Your task to perform on an android device: toggle improve location accuracy Image 0: 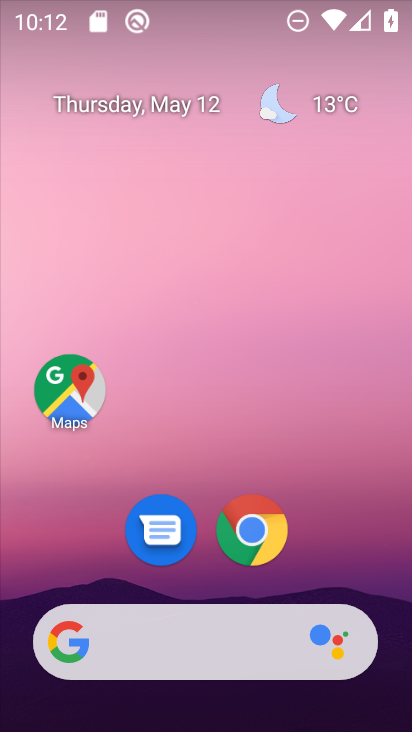
Step 0: drag from (174, 429) to (225, 12)
Your task to perform on an android device: toggle improve location accuracy Image 1: 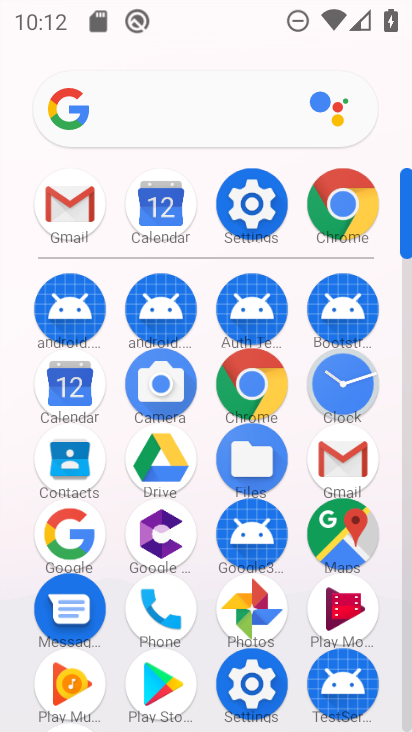
Step 1: click (254, 187)
Your task to perform on an android device: toggle improve location accuracy Image 2: 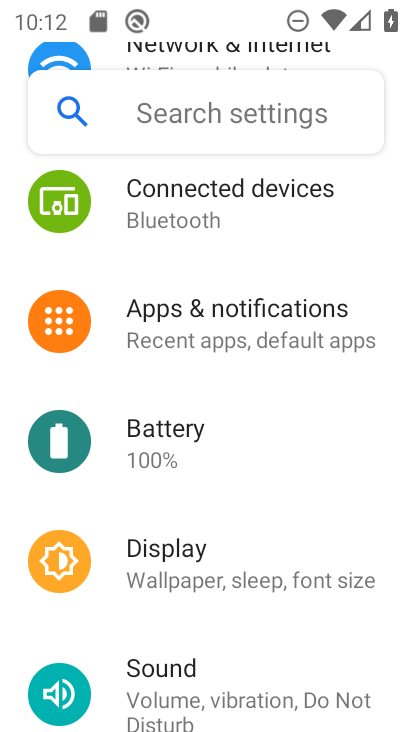
Step 2: drag from (249, 217) to (219, 606)
Your task to perform on an android device: toggle improve location accuracy Image 3: 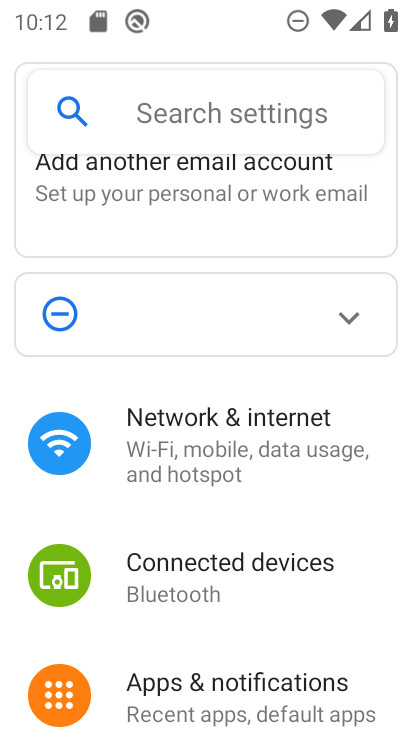
Step 3: drag from (281, 548) to (292, 161)
Your task to perform on an android device: toggle improve location accuracy Image 4: 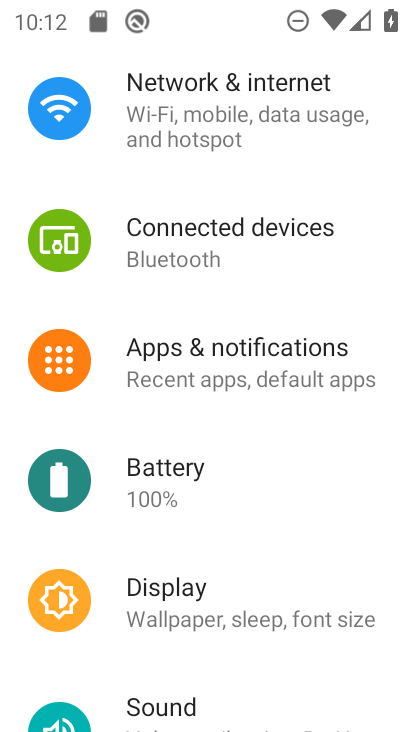
Step 4: drag from (293, 551) to (293, 87)
Your task to perform on an android device: toggle improve location accuracy Image 5: 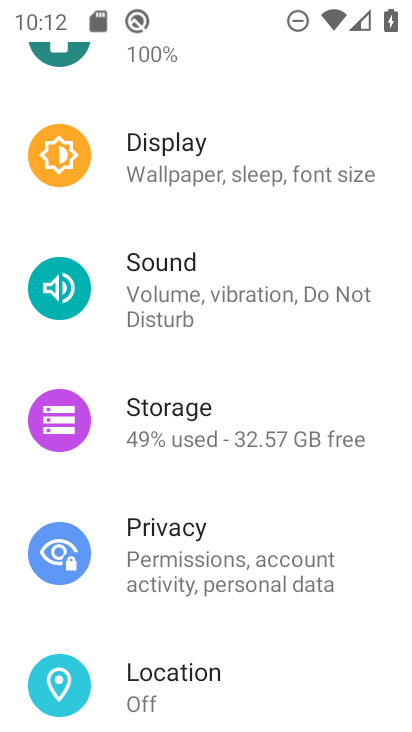
Step 5: click (218, 679)
Your task to perform on an android device: toggle improve location accuracy Image 6: 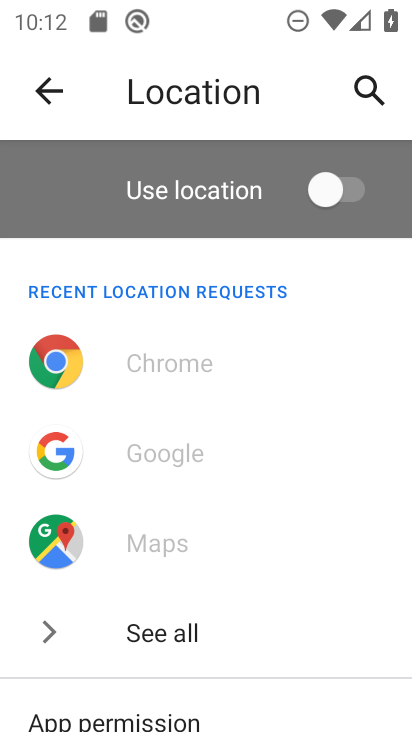
Step 6: drag from (279, 638) to (294, 255)
Your task to perform on an android device: toggle improve location accuracy Image 7: 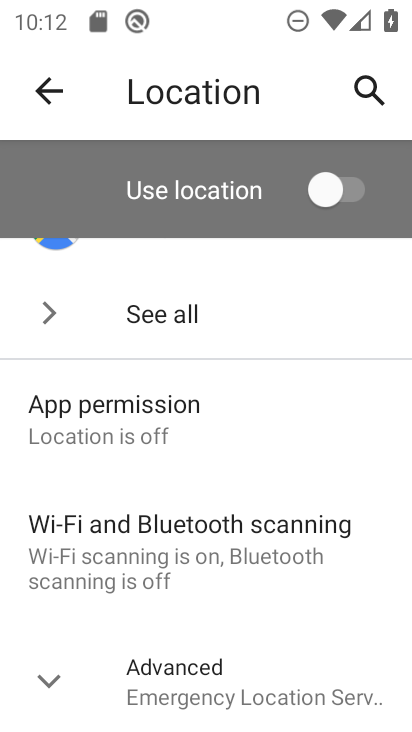
Step 7: drag from (272, 609) to (295, 238)
Your task to perform on an android device: toggle improve location accuracy Image 8: 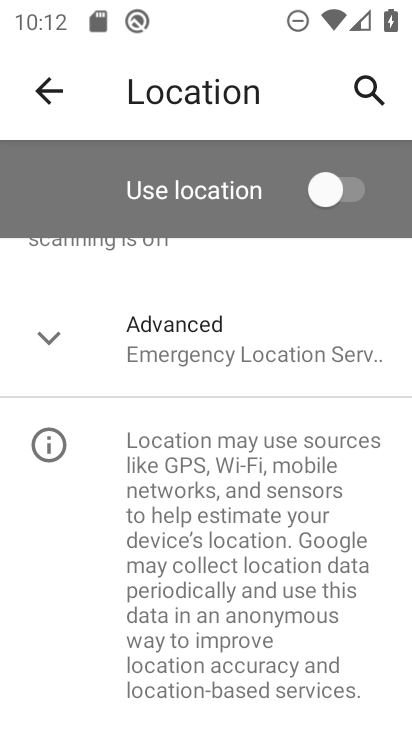
Step 8: drag from (292, 528) to (255, 224)
Your task to perform on an android device: toggle improve location accuracy Image 9: 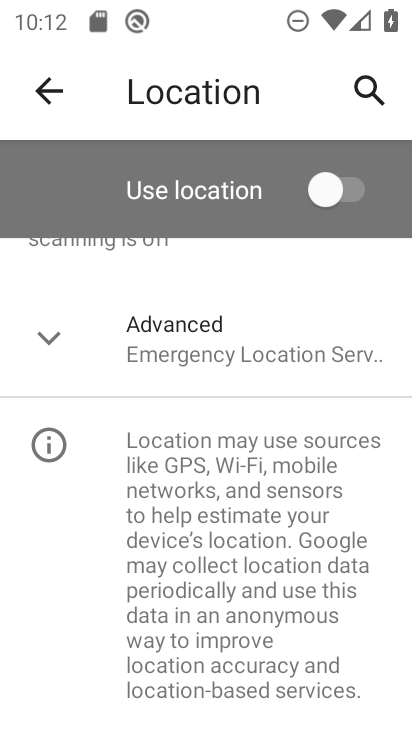
Step 9: click (271, 330)
Your task to perform on an android device: toggle improve location accuracy Image 10: 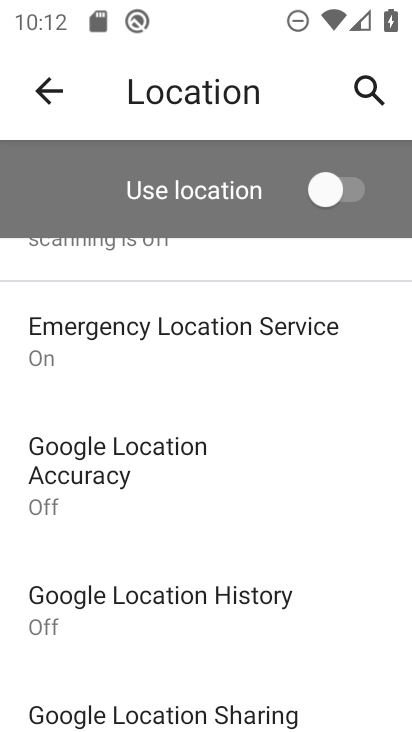
Step 10: click (167, 456)
Your task to perform on an android device: toggle improve location accuracy Image 11: 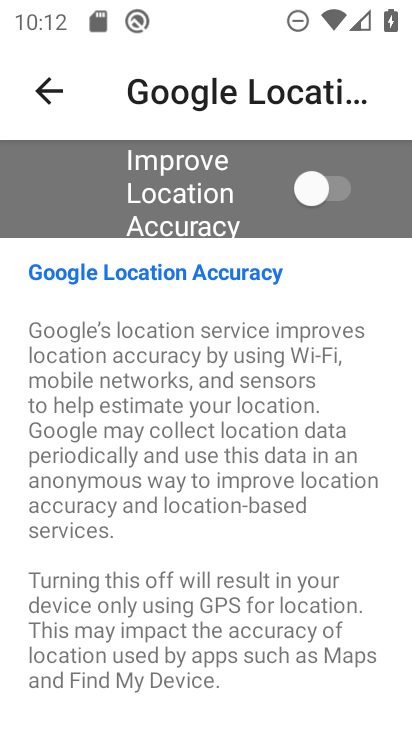
Step 11: click (313, 190)
Your task to perform on an android device: toggle improve location accuracy Image 12: 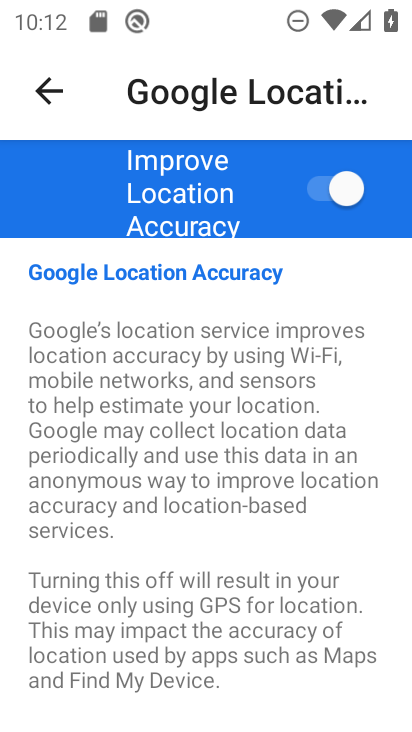
Step 12: task complete